Your task to perform on an android device: Open Google Image 0: 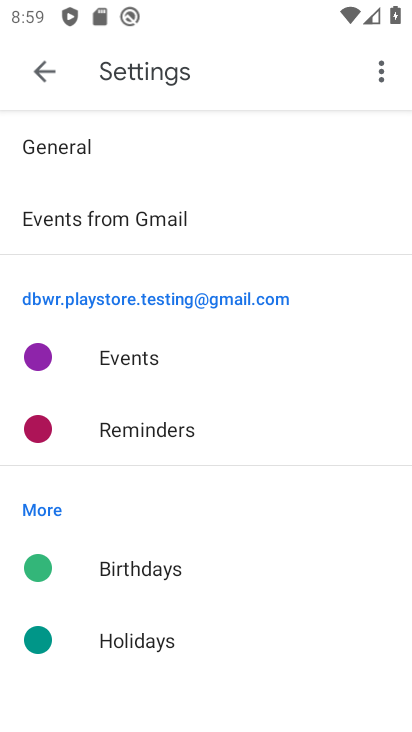
Step 0: press home button
Your task to perform on an android device: Open Google Image 1: 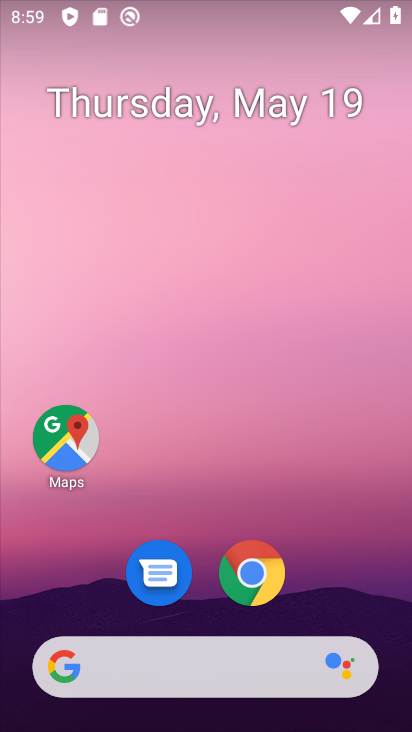
Step 1: drag from (245, 603) to (267, 206)
Your task to perform on an android device: Open Google Image 2: 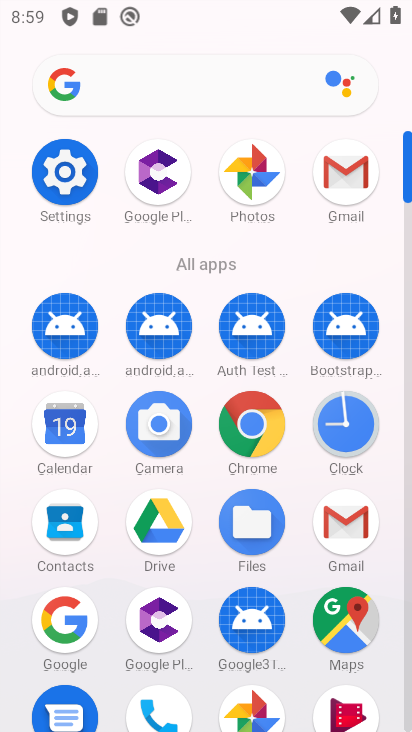
Step 2: click (72, 604)
Your task to perform on an android device: Open Google Image 3: 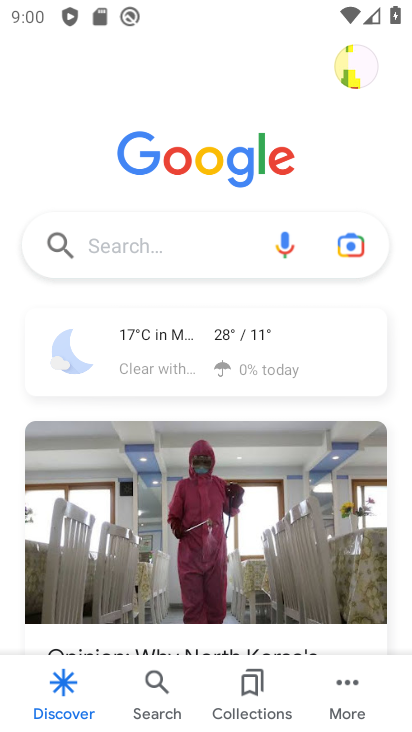
Step 3: task complete